Your task to perform on an android device: change the clock display to show seconds Image 0: 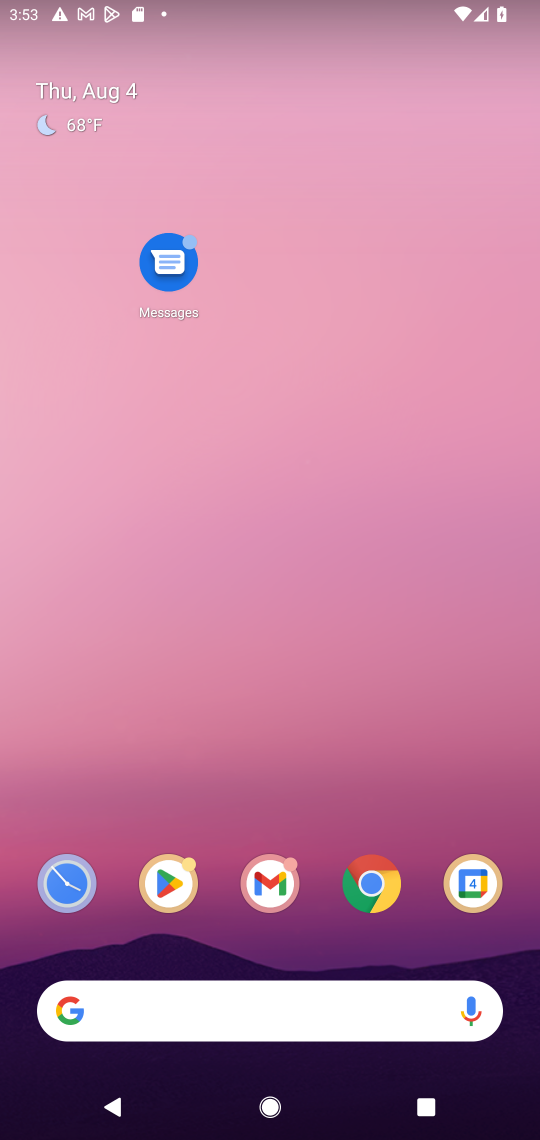
Step 0: drag from (320, 967) to (320, 111)
Your task to perform on an android device: change the clock display to show seconds Image 1: 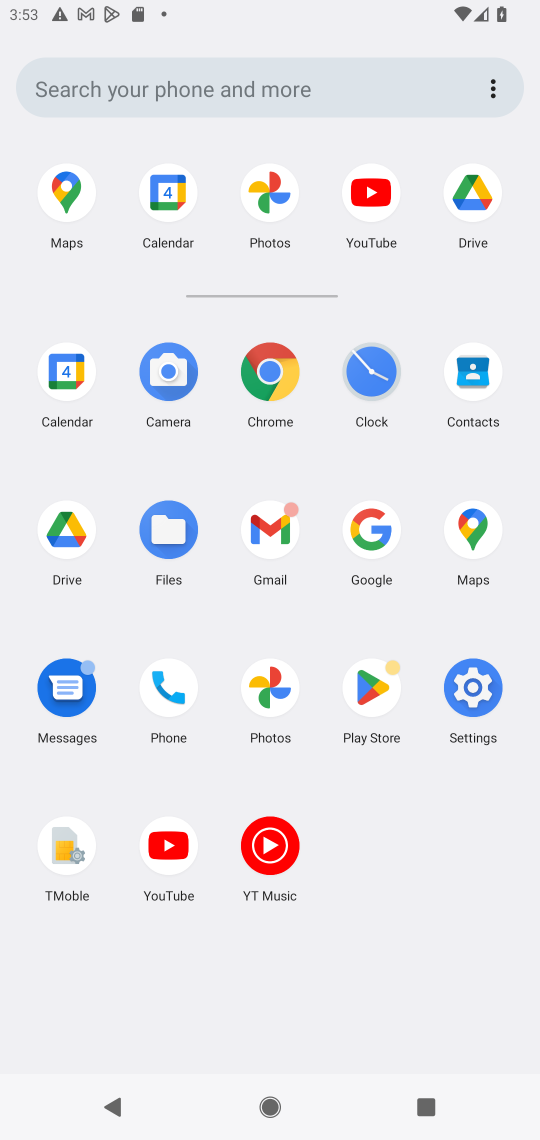
Step 1: click (373, 369)
Your task to perform on an android device: change the clock display to show seconds Image 2: 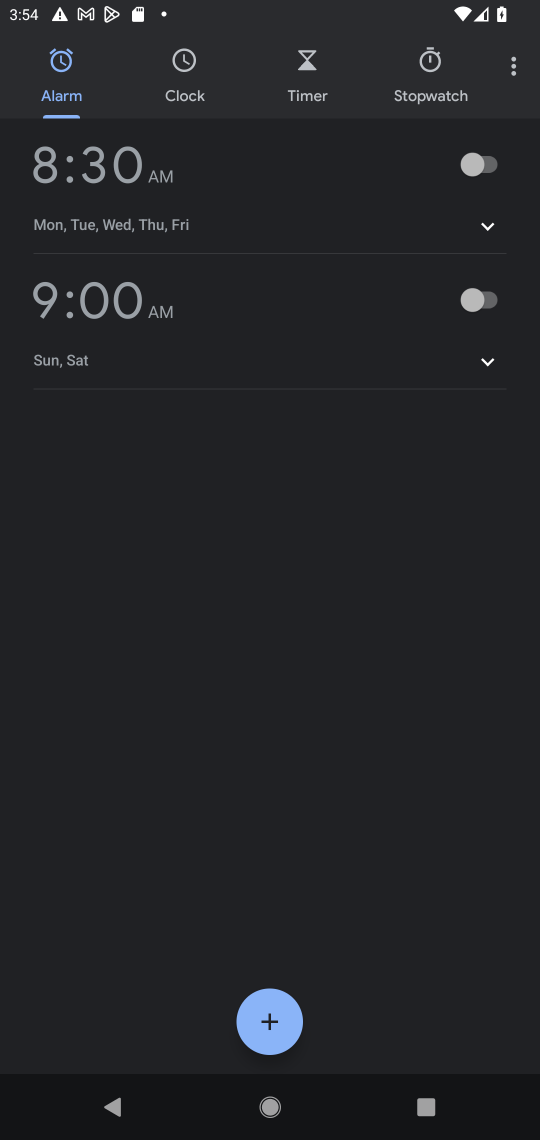
Step 2: click (515, 72)
Your task to perform on an android device: change the clock display to show seconds Image 3: 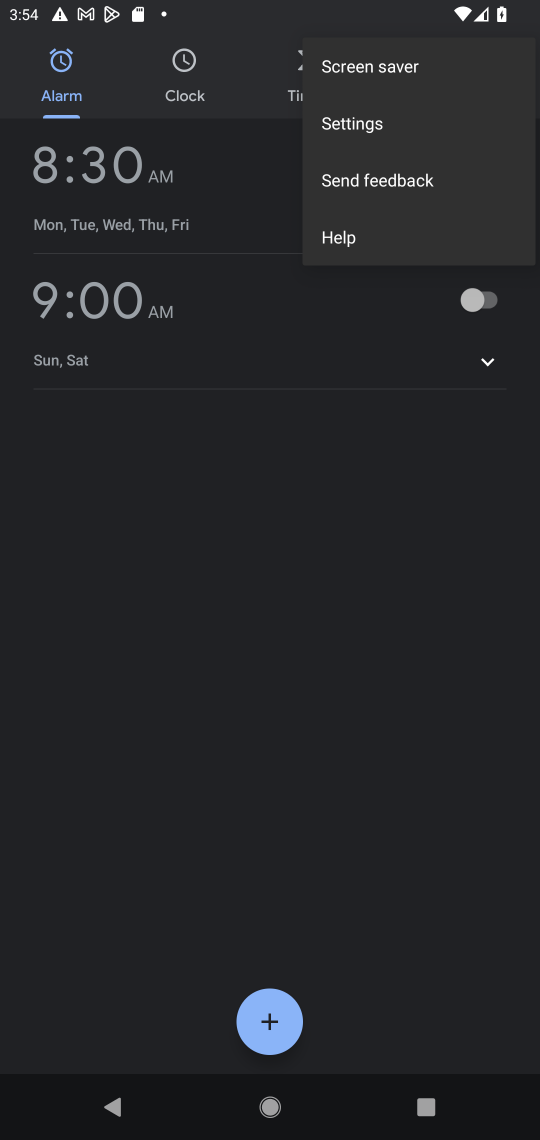
Step 3: click (367, 122)
Your task to perform on an android device: change the clock display to show seconds Image 4: 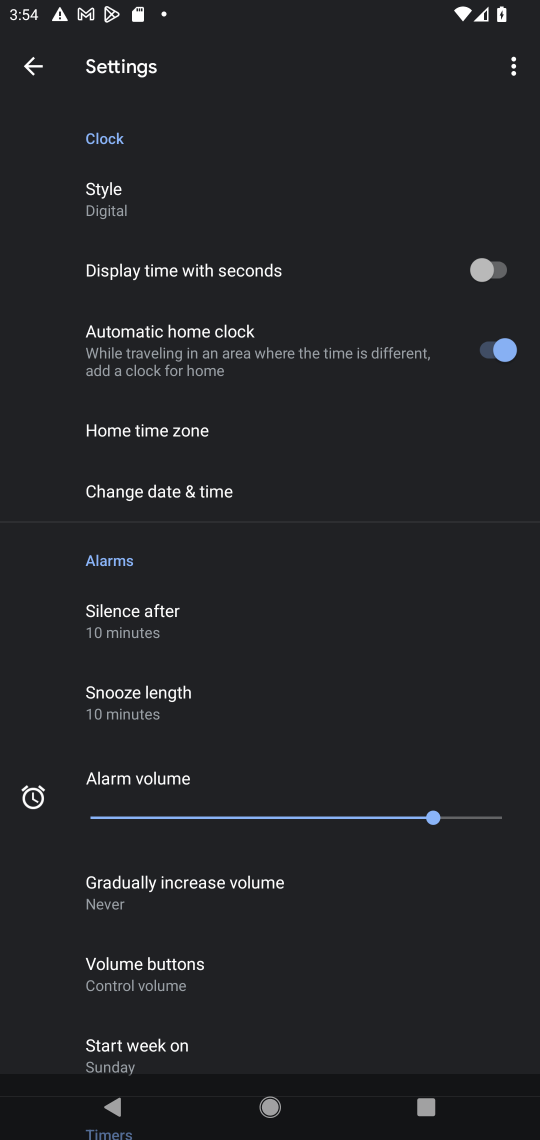
Step 4: click (494, 261)
Your task to perform on an android device: change the clock display to show seconds Image 5: 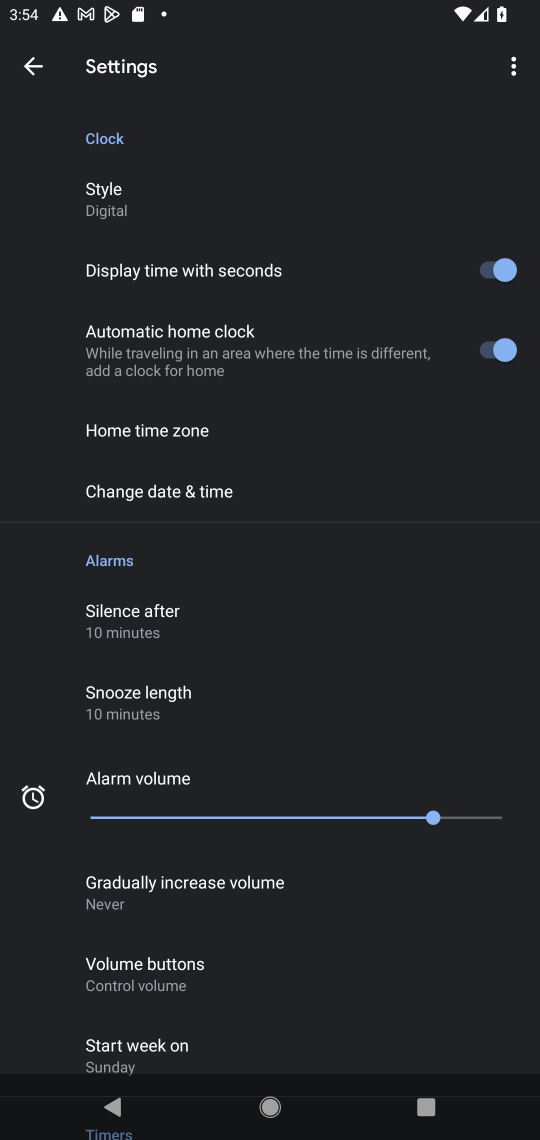
Step 5: task complete